Your task to perform on an android device: toggle notifications settings in the gmail app Image 0: 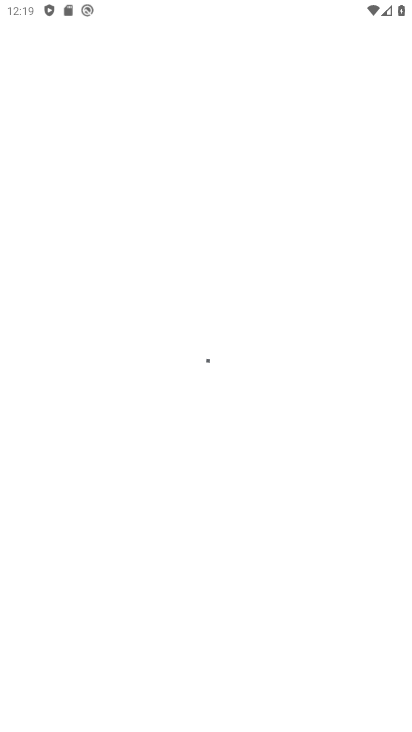
Step 0: press home button
Your task to perform on an android device: toggle notifications settings in the gmail app Image 1: 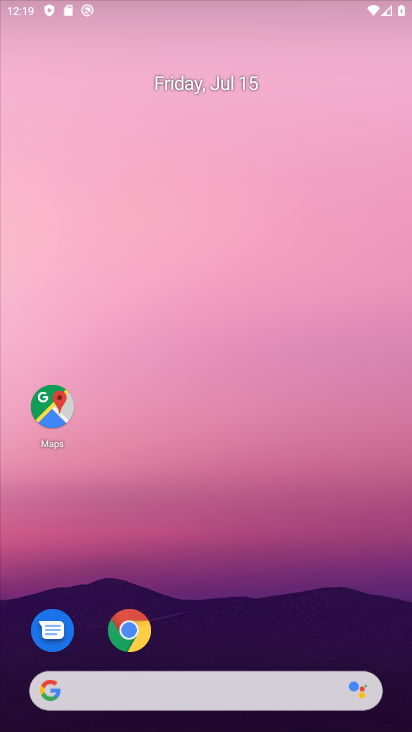
Step 1: drag from (212, 566) to (251, 249)
Your task to perform on an android device: toggle notifications settings in the gmail app Image 2: 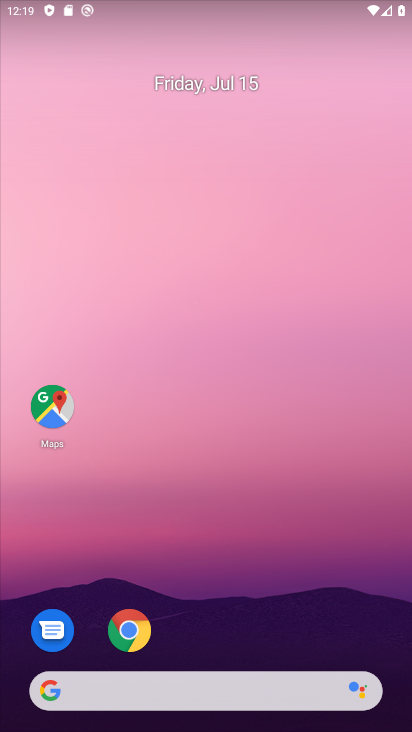
Step 2: drag from (194, 670) to (241, 179)
Your task to perform on an android device: toggle notifications settings in the gmail app Image 3: 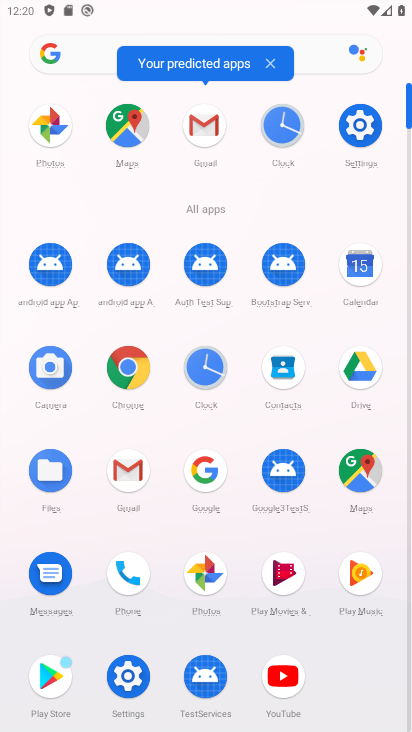
Step 3: click (129, 486)
Your task to perform on an android device: toggle notifications settings in the gmail app Image 4: 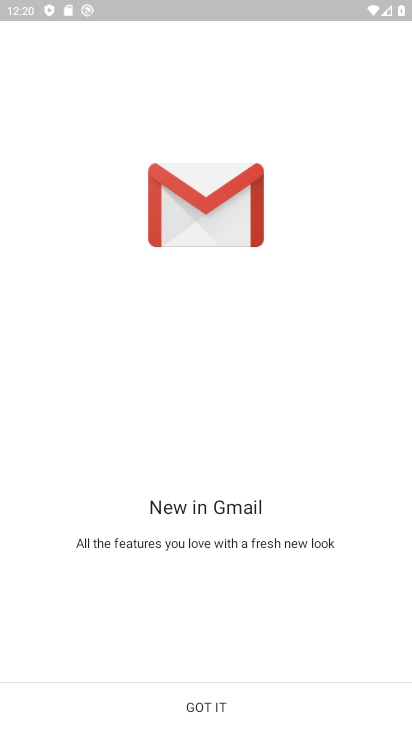
Step 4: click (231, 705)
Your task to perform on an android device: toggle notifications settings in the gmail app Image 5: 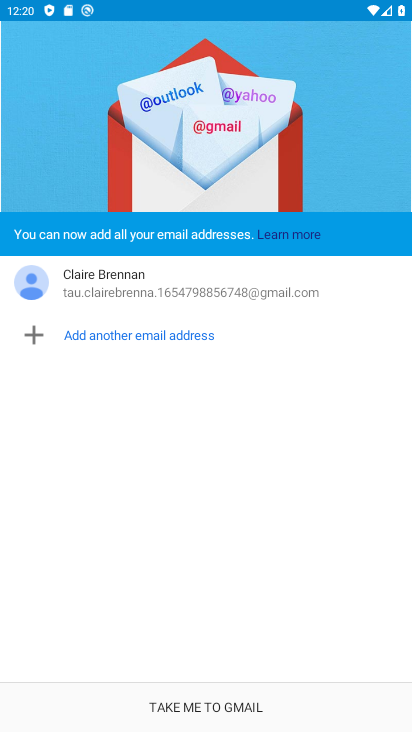
Step 5: click (231, 705)
Your task to perform on an android device: toggle notifications settings in the gmail app Image 6: 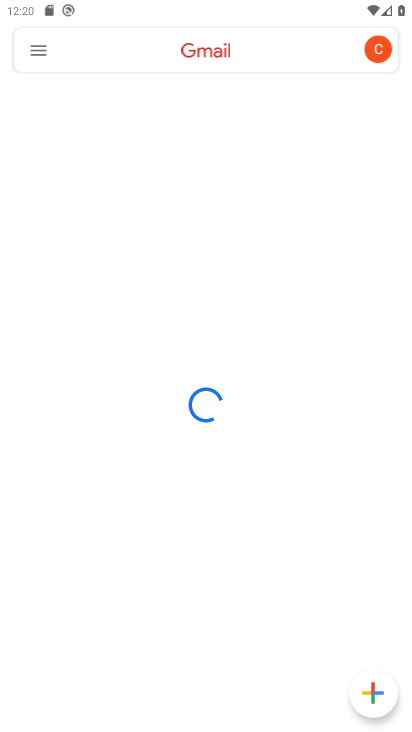
Step 6: click (38, 51)
Your task to perform on an android device: toggle notifications settings in the gmail app Image 7: 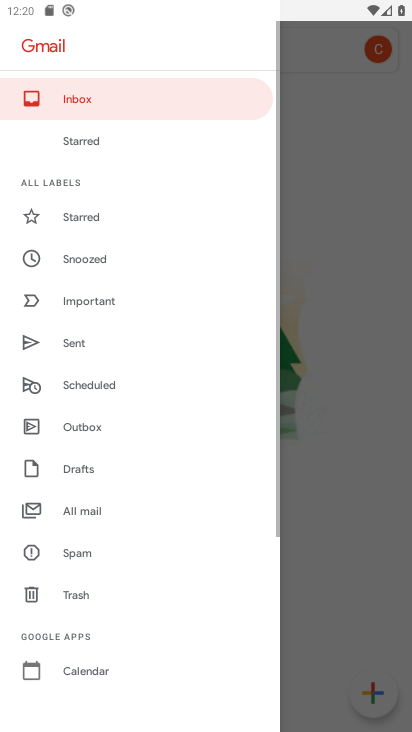
Step 7: drag from (131, 653) to (232, 414)
Your task to perform on an android device: toggle notifications settings in the gmail app Image 8: 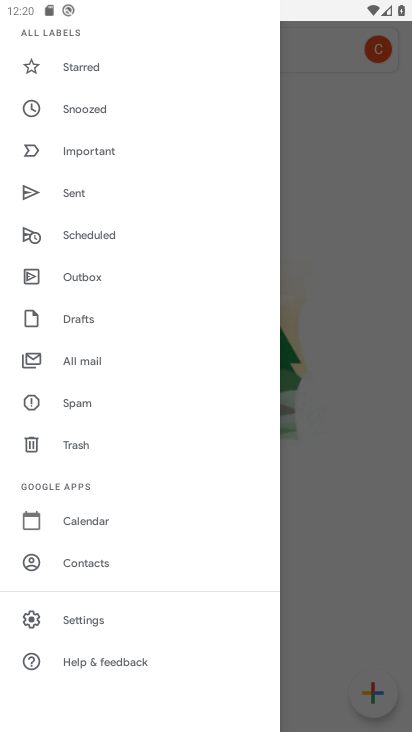
Step 8: click (175, 627)
Your task to perform on an android device: toggle notifications settings in the gmail app Image 9: 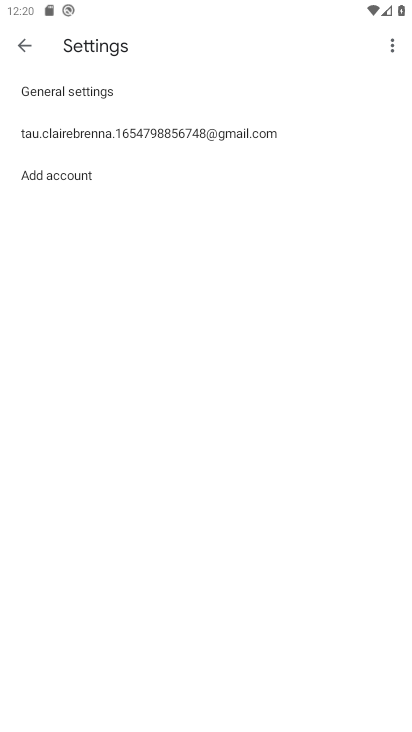
Step 9: click (202, 139)
Your task to perform on an android device: toggle notifications settings in the gmail app Image 10: 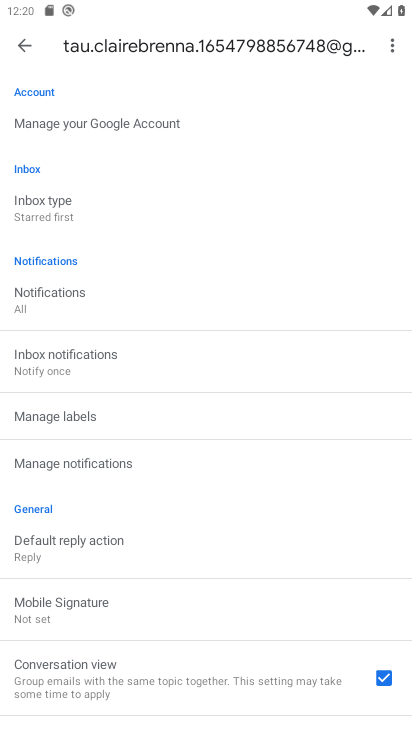
Step 10: drag from (195, 509) to (250, 315)
Your task to perform on an android device: toggle notifications settings in the gmail app Image 11: 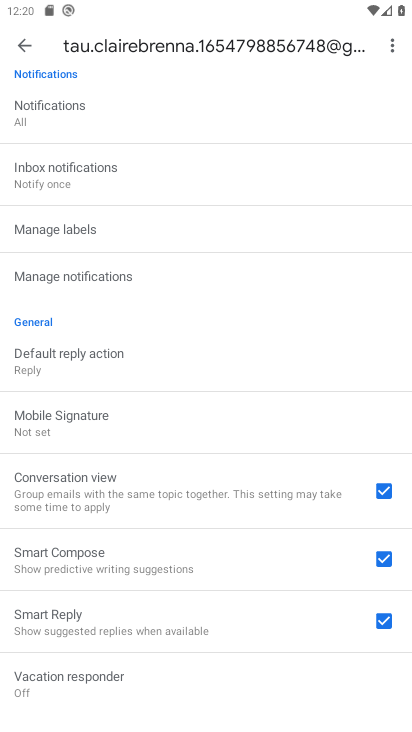
Step 11: click (178, 281)
Your task to perform on an android device: toggle notifications settings in the gmail app Image 12: 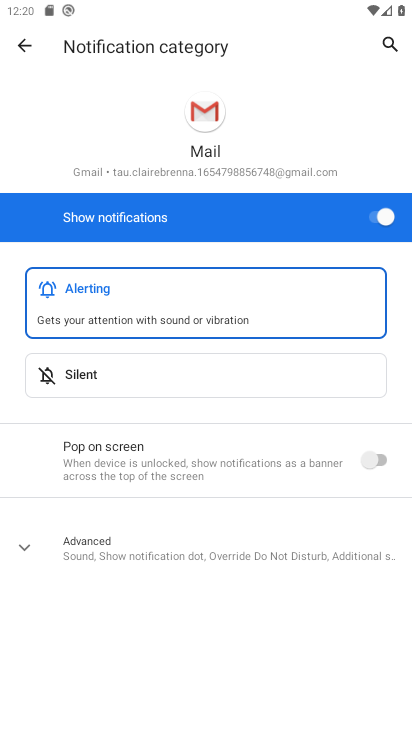
Step 12: click (369, 230)
Your task to perform on an android device: toggle notifications settings in the gmail app Image 13: 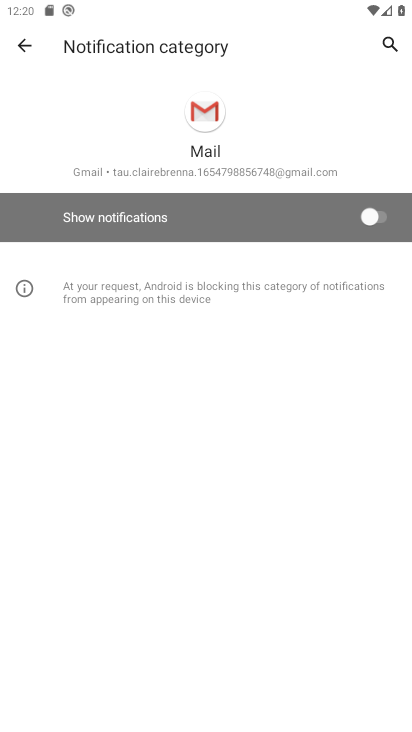
Step 13: task complete